Your task to perform on an android device: turn vacation reply on in the gmail app Image 0: 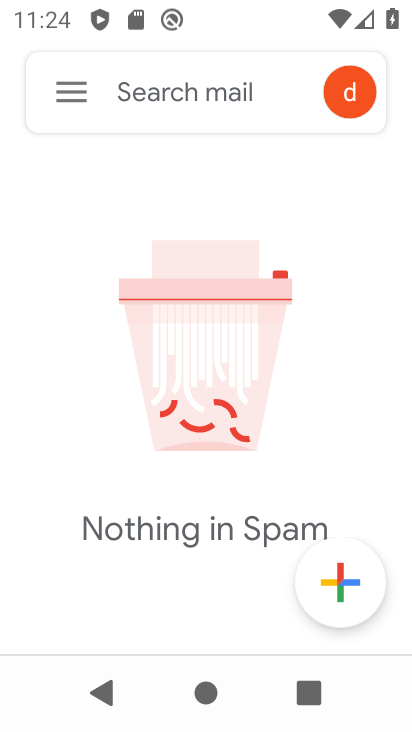
Step 0: click (73, 96)
Your task to perform on an android device: turn vacation reply on in the gmail app Image 1: 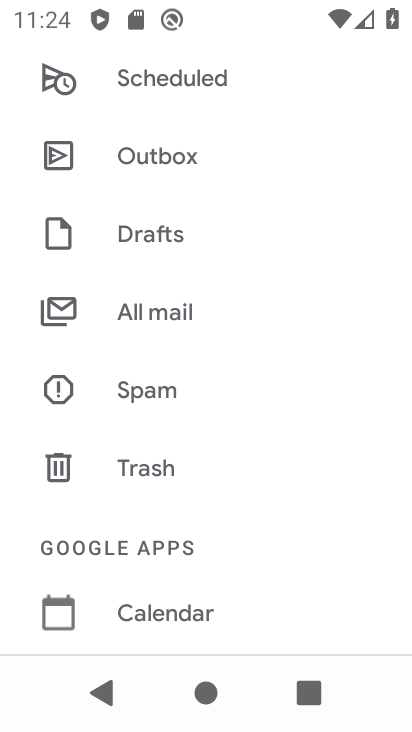
Step 1: drag from (272, 460) to (268, 135)
Your task to perform on an android device: turn vacation reply on in the gmail app Image 2: 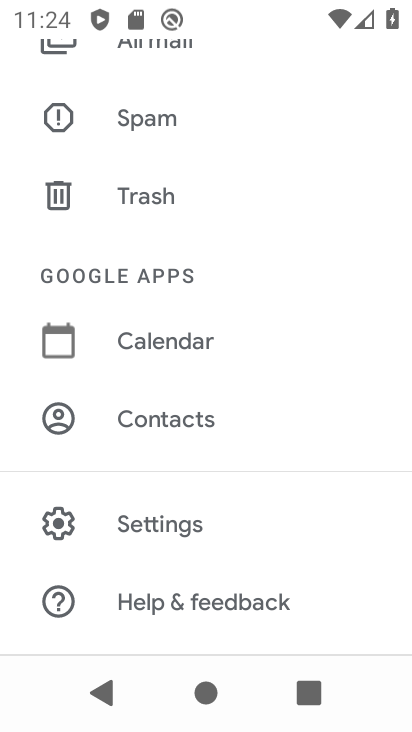
Step 2: click (171, 520)
Your task to perform on an android device: turn vacation reply on in the gmail app Image 3: 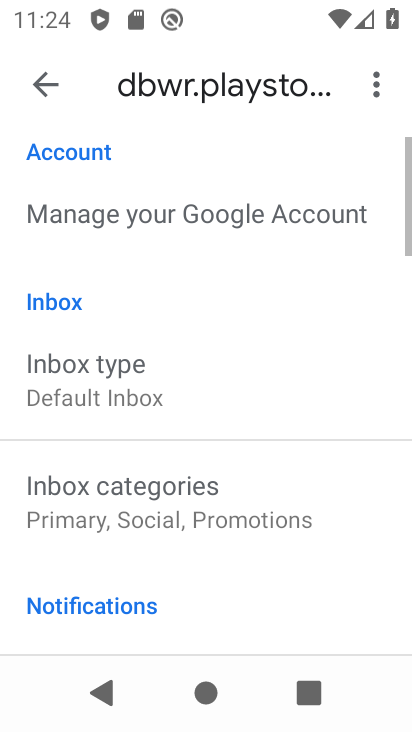
Step 3: drag from (292, 528) to (288, 186)
Your task to perform on an android device: turn vacation reply on in the gmail app Image 4: 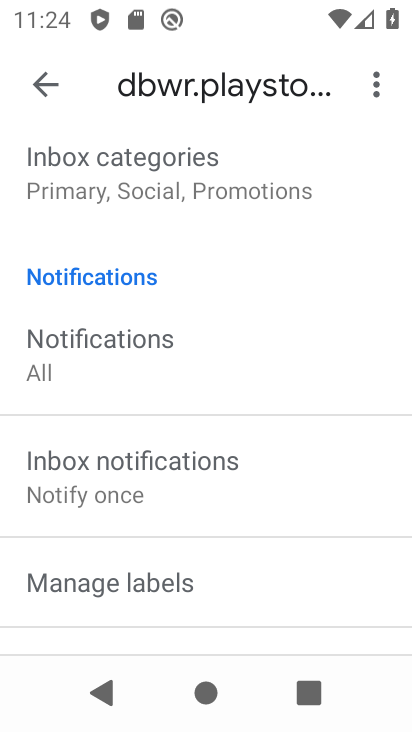
Step 4: drag from (233, 530) to (248, 152)
Your task to perform on an android device: turn vacation reply on in the gmail app Image 5: 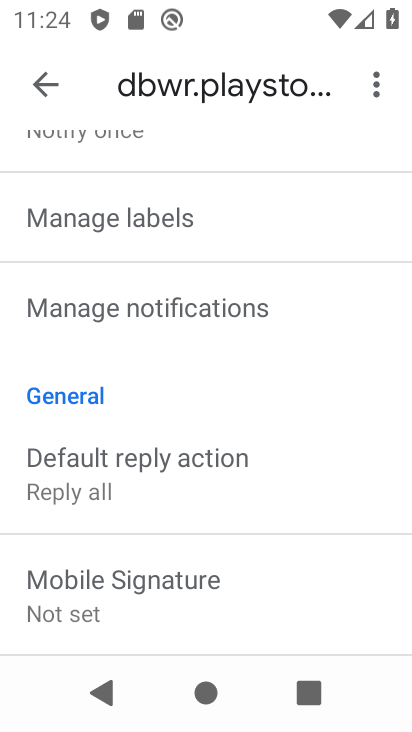
Step 5: drag from (253, 545) to (258, 118)
Your task to perform on an android device: turn vacation reply on in the gmail app Image 6: 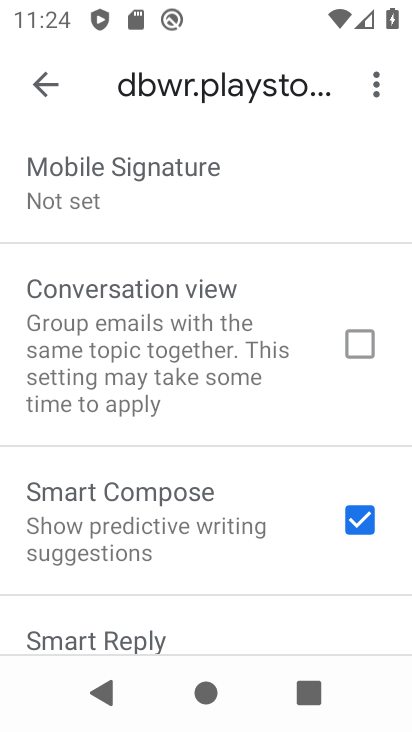
Step 6: drag from (220, 333) to (194, 555)
Your task to perform on an android device: turn vacation reply on in the gmail app Image 7: 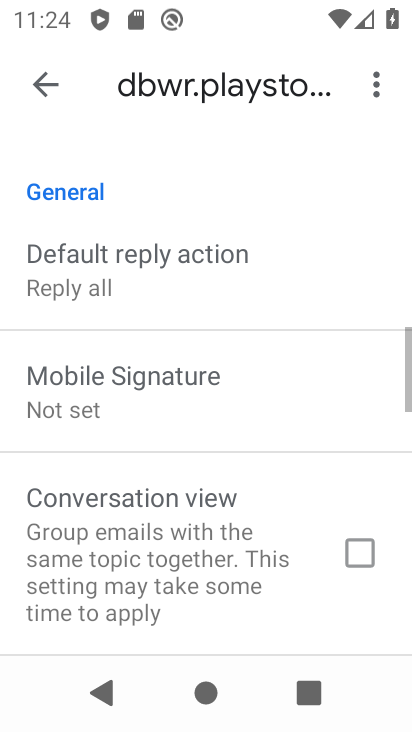
Step 7: drag from (193, 551) to (213, 205)
Your task to perform on an android device: turn vacation reply on in the gmail app Image 8: 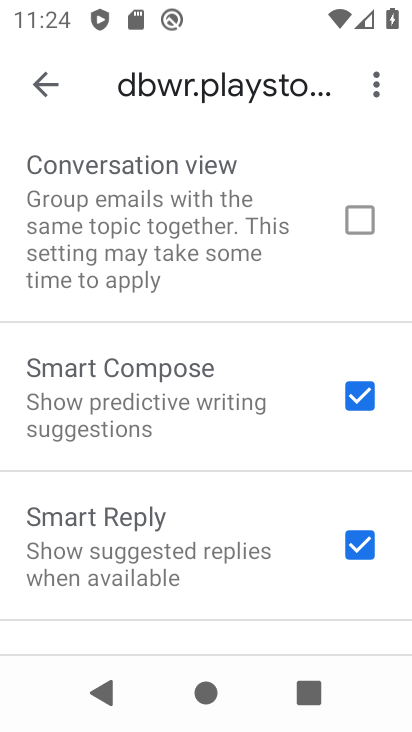
Step 8: drag from (219, 536) to (226, 216)
Your task to perform on an android device: turn vacation reply on in the gmail app Image 9: 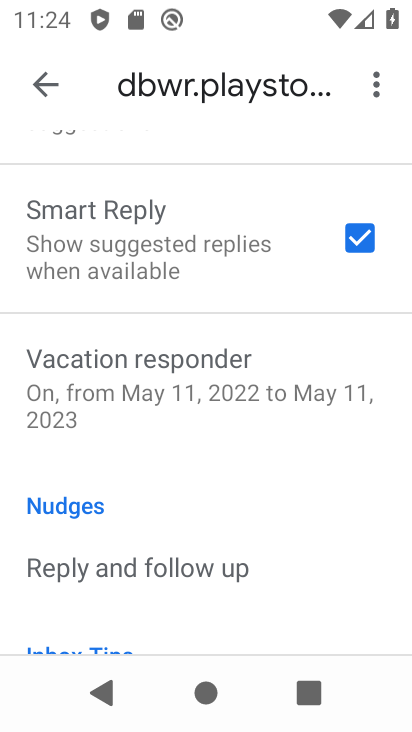
Step 9: click (129, 327)
Your task to perform on an android device: turn vacation reply on in the gmail app Image 10: 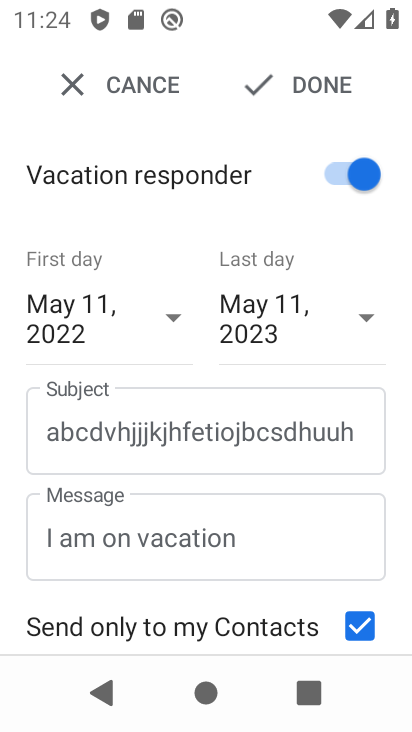
Step 10: drag from (194, 536) to (213, 329)
Your task to perform on an android device: turn vacation reply on in the gmail app Image 11: 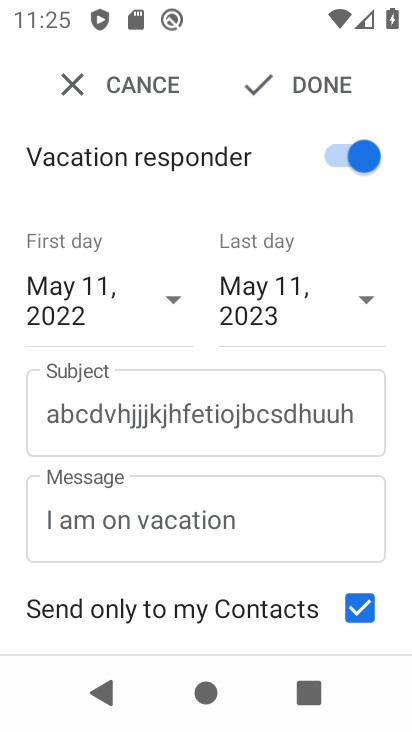
Step 11: drag from (183, 544) to (227, 227)
Your task to perform on an android device: turn vacation reply on in the gmail app Image 12: 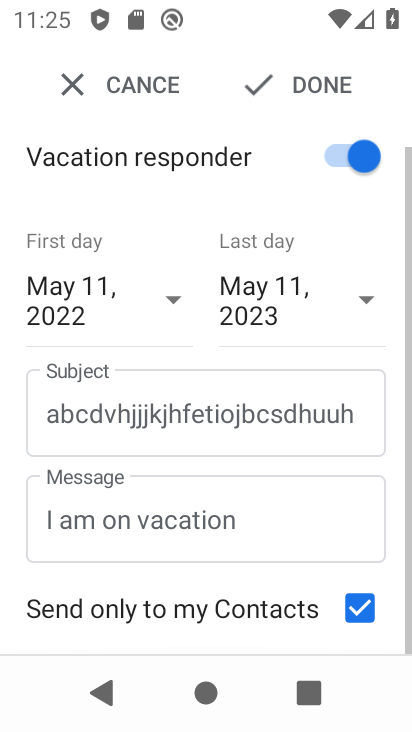
Step 12: click (283, 94)
Your task to perform on an android device: turn vacation reply on in the gmail app Image 13: 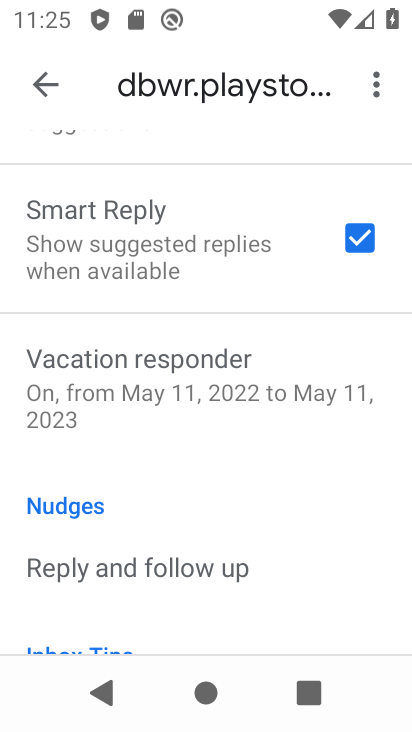
Step 13: task complete